Your task to perform on an android device: Toggle the flashlight Image 0: 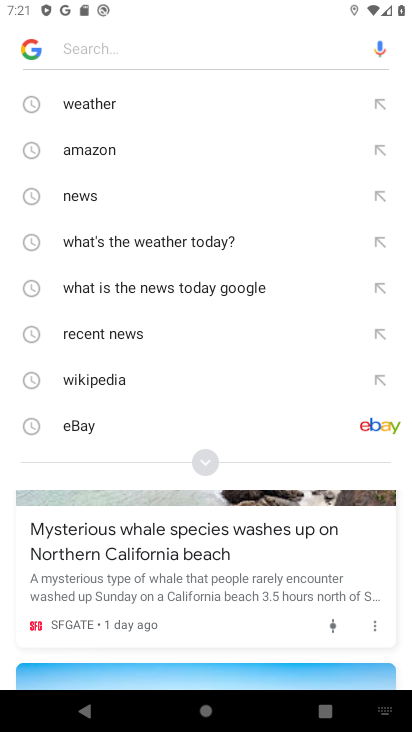
Step 0: press back button
Your task to perform on an android device: Toggle the flashlight Image 1: 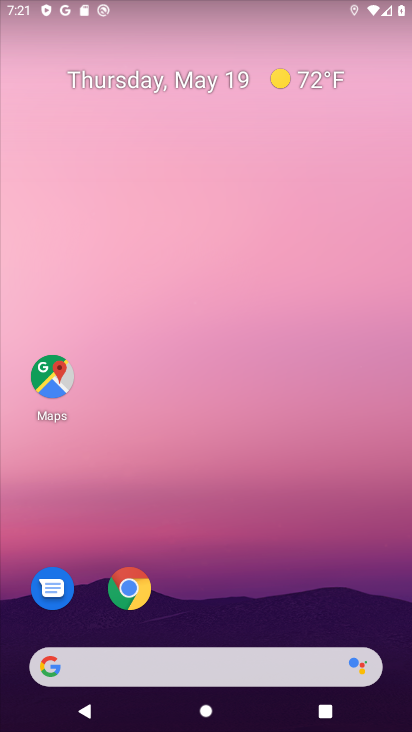
Step 1: drag from (374, 10) to (344, 478)
Your task to perform on an android device: Toggle the flashlight Image 2: 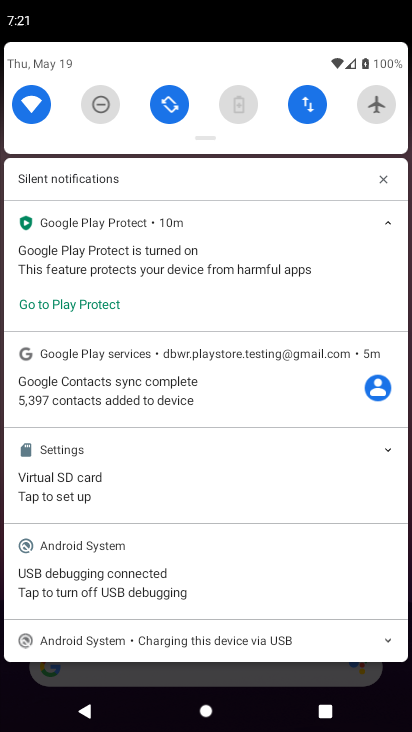
Step 2: drag from (311, 134) to (261, 643)
Your task to perform on an android device: Toggle the flashlight Image 3: 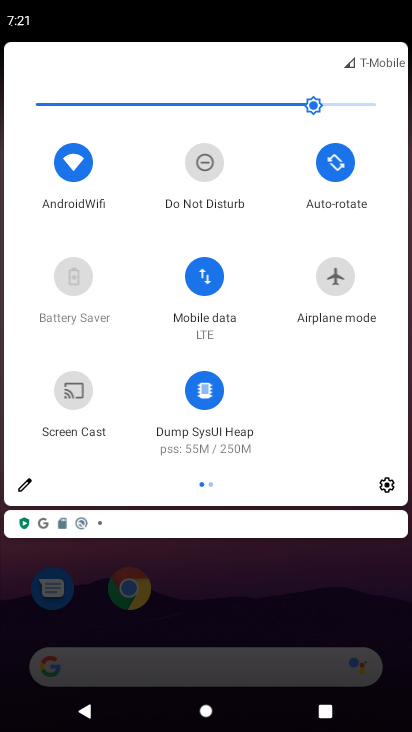
Step 3: click (20, 480)
Your task to perform on an android device: Toggle the flashlight Image 4: 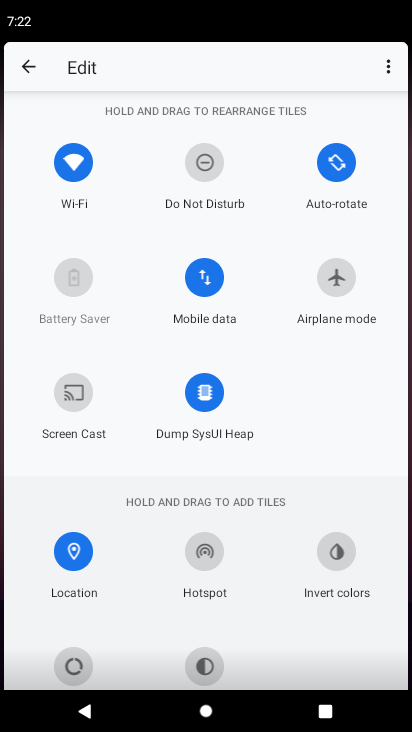
Step 4: task complete